Your task to perform on an android device: turn off location Image 0: 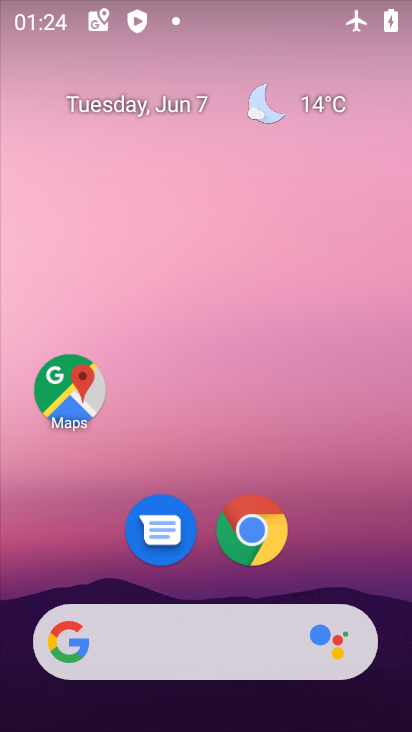
Step 0: drag from (283, 551) to (341, 131)
Your task to perform on an android device: turn off location Image 1: 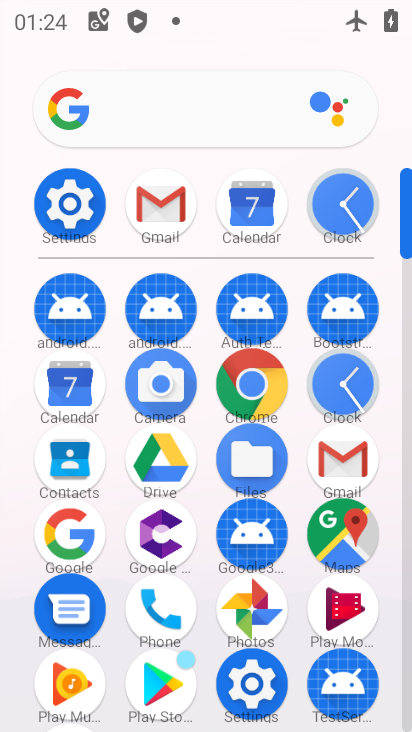
Step 1: click (66, 197)
Your task to perform on an android device: turn off location Image 2: 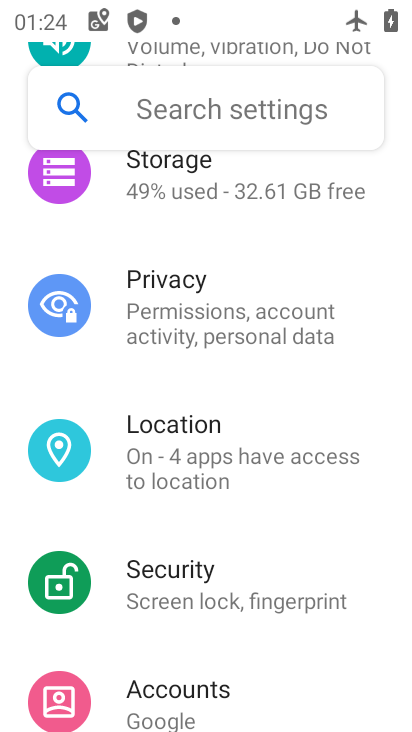
Step 2: click (222, 464)
Your task to perform on an android device: turn off location Image 3: 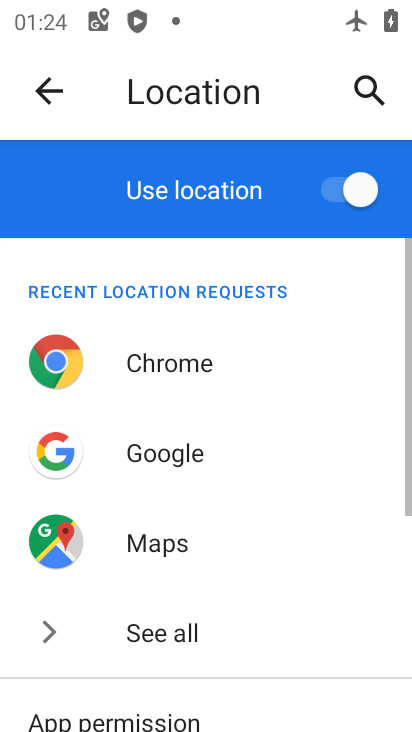
Step 3: click (344, 191)
Your task to perform on an android device: turn off location Image 4: 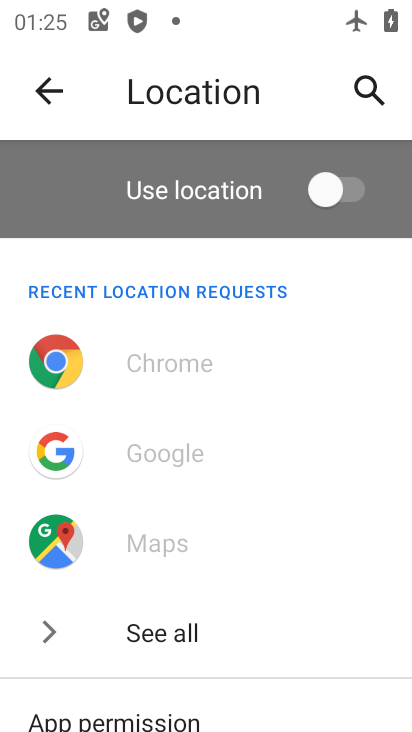
Step 4: task complete